Your task to perform on an android device: Search for Mexican restaurants on Maps Image 0: 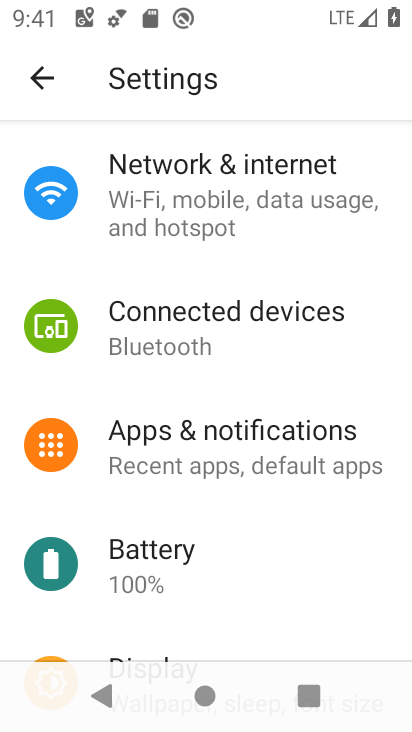
Step 0: press home button
Your task to perform on an android device: Search for Mexican restaurants on Maps Image 1: 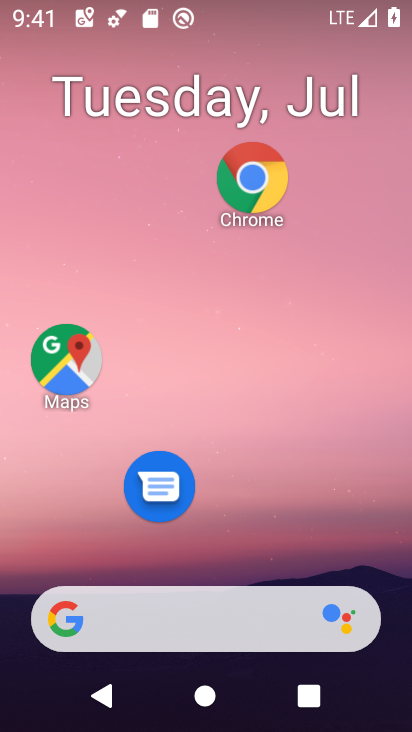
Step 1: drag from (272, 590) to (284, 281)
Your task to perform on an android device: Search for Mexican restaurants on Maps Image 2: 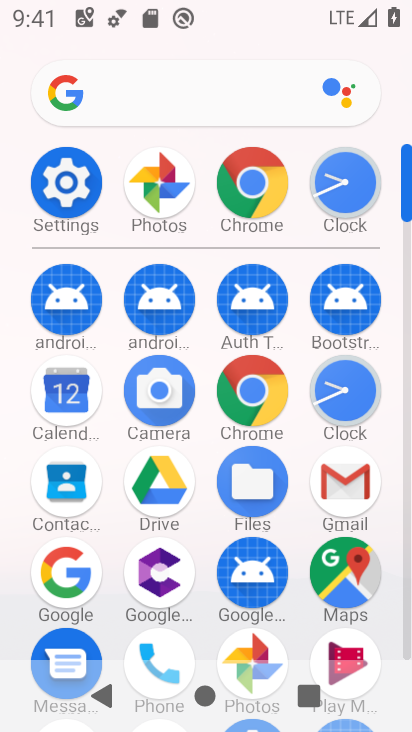
Step 2: click (339, 571)
Your task to perform on an android device: Search for Mexican restaurants on Maps Image 3: 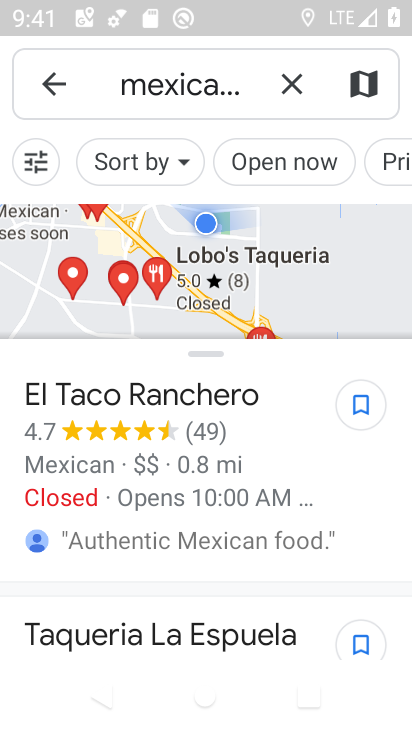
Step 3: task complete